Your task to perform on an android device: toggle improve location accuracy Image 0: 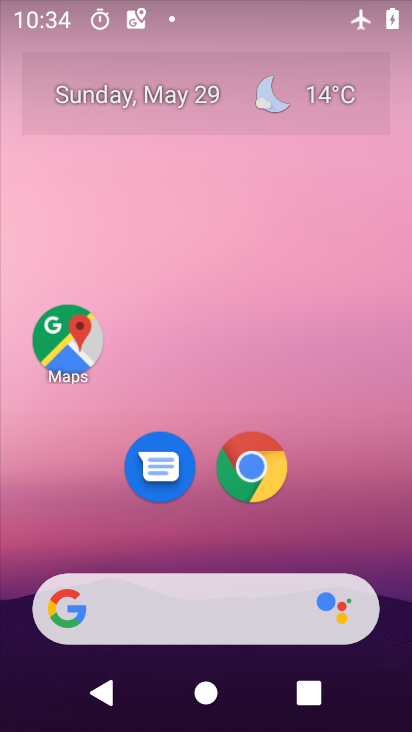
Step 0: drag from (194, 539) to (206, 122)
Your task to perform on an android device: toggle improve location accuracy Image 1: 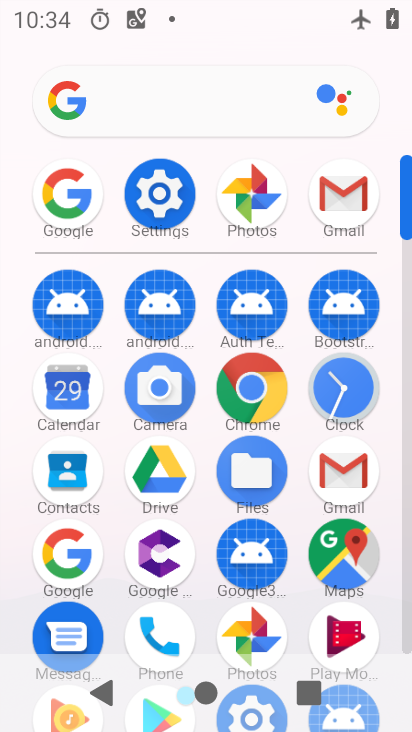
Step 1: click (172, 180)
Your task to perform on an android device: toggle improve location accuracy Image 2: 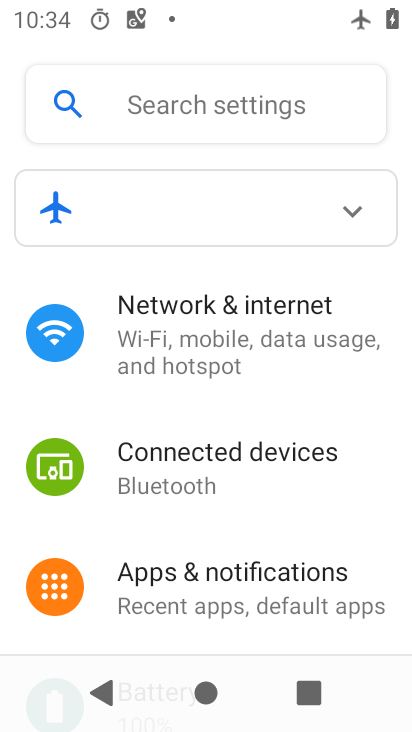
Step 2: drag from (211, 576) to (205, 299)
Your task to perform on an android device: toggle improve location accuracy Image 3: 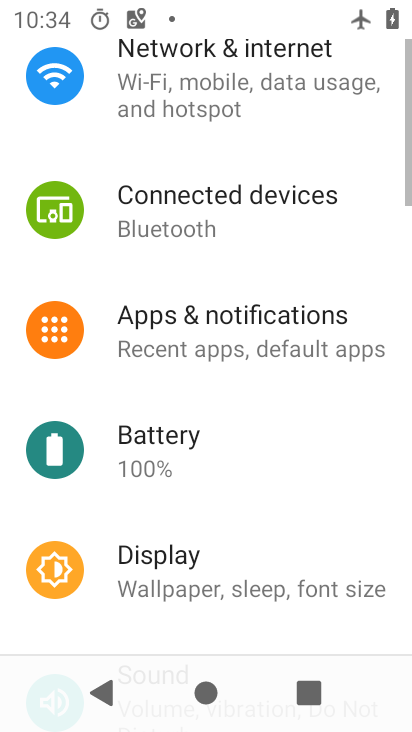
Step 3: drag from (222, 529) to (211, 311)
Your task to perform on an android device: toggle improve location accuracy Image 4: 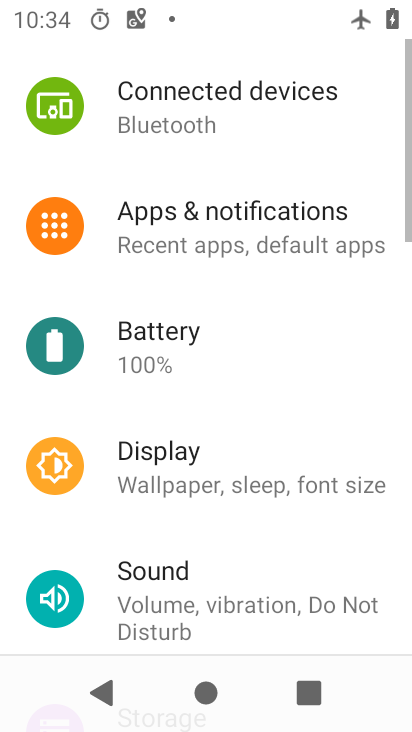
Step 4: drag from (238, 514) to (224, 267)
Your task to perform on an android device: toggle improve location accuracy Image 5: 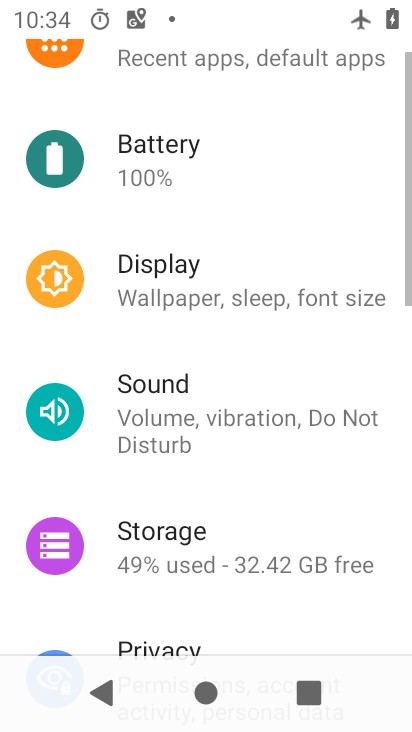
Step 5: drag from (218, 453) to (211, 281)
Your task to perform on an android device: toggle improve location accuracy Image 6: 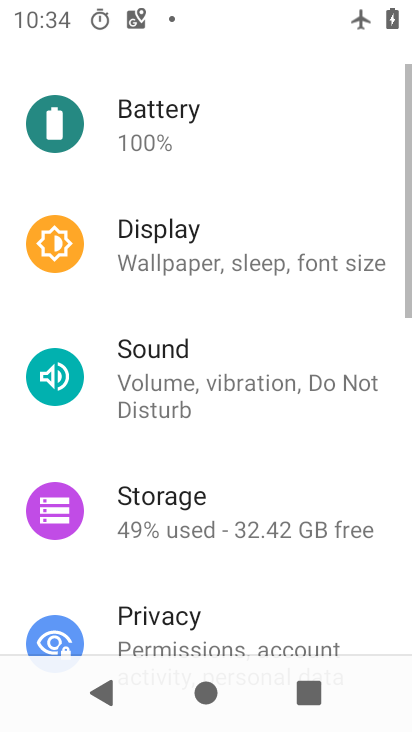
Step 6: click (220, 272)
Your task to perform on an android device: toggle improve location accuracy Image 7: 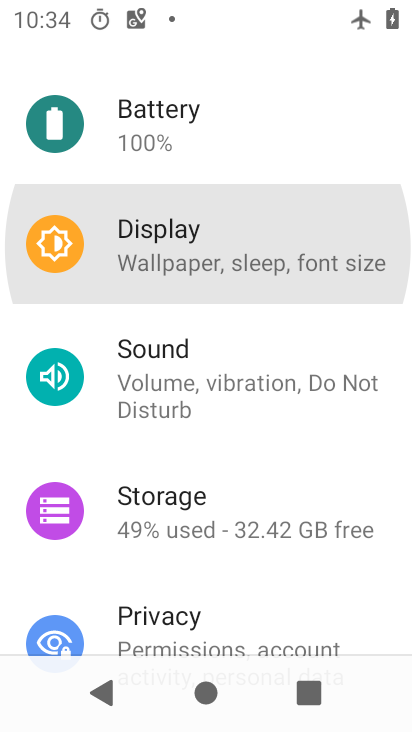
Step 7: drag from (224, 519) to (232, 232)
Your task to perform on an android device: toggle improve location accuracy Image 8: 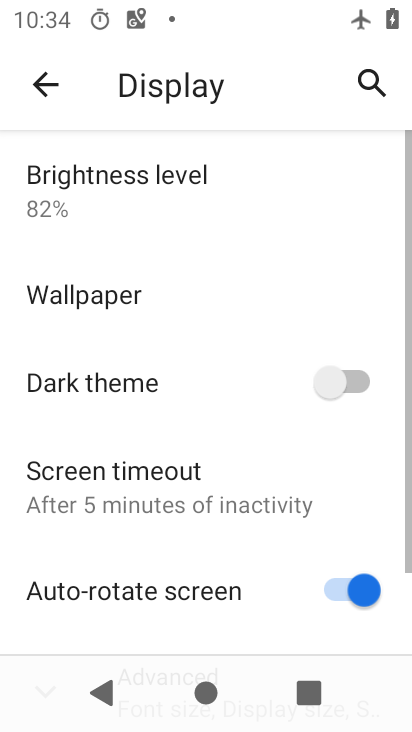
Step 8: drag from (243, 519) to (245, 225)
Your task to perform on an android device: toggle improve location accuracy Image 9: 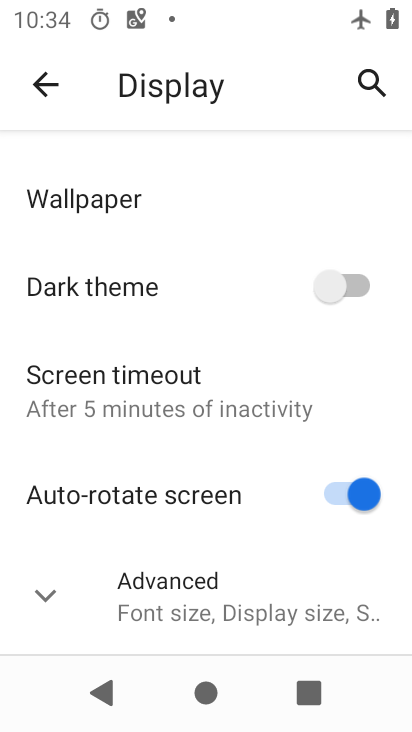
Step 9: click (39, 75)
Your task to perform on an android device: toggle improve location accuracy Image 10: 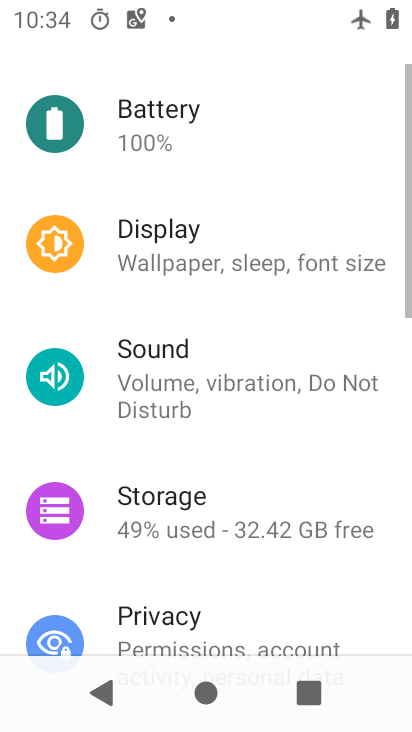
Step 10: drag from (201, 594) to (206, 218)
Your task to perform on an android device: toggle improve location accuracy Image 11: 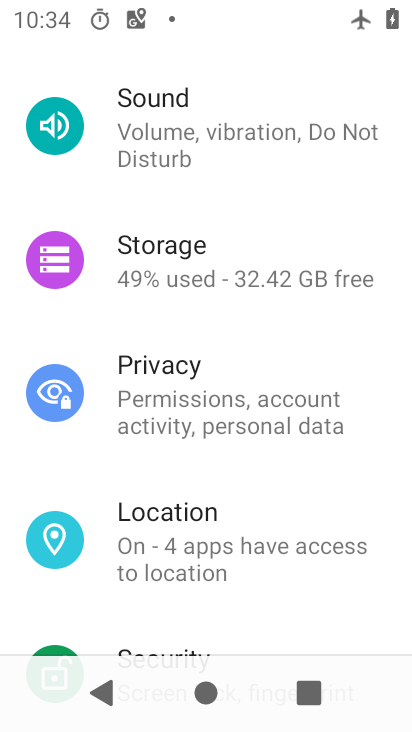
Step 11: click (206, 571)
Your task to perform on an android device: toggle improve location accuracy Image 12: 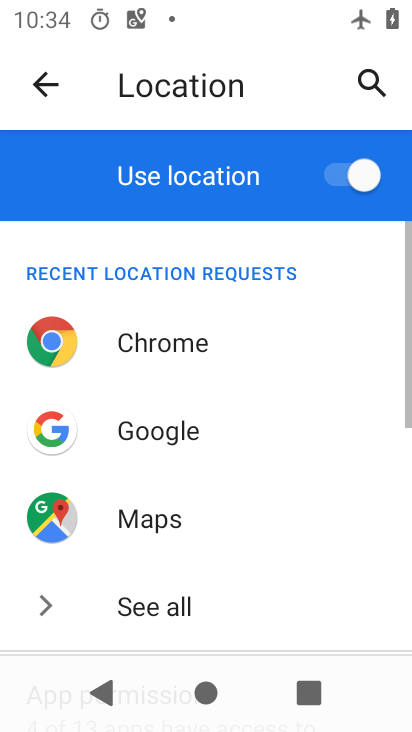
Step 12: drag from (207, 518) to (186, 195)
Your task to perform on an android device: toggle improve location accuracy Image 13: 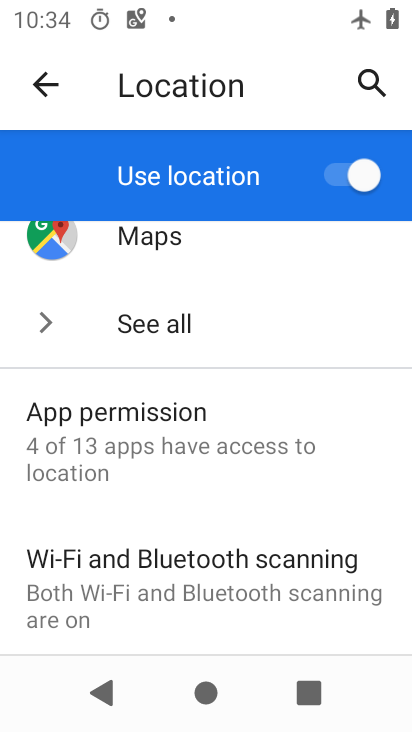
Step 13: drag from (223, 586) to (226, 276)
Your task to perform on an android device: toggle improve location accuracy Image 14: 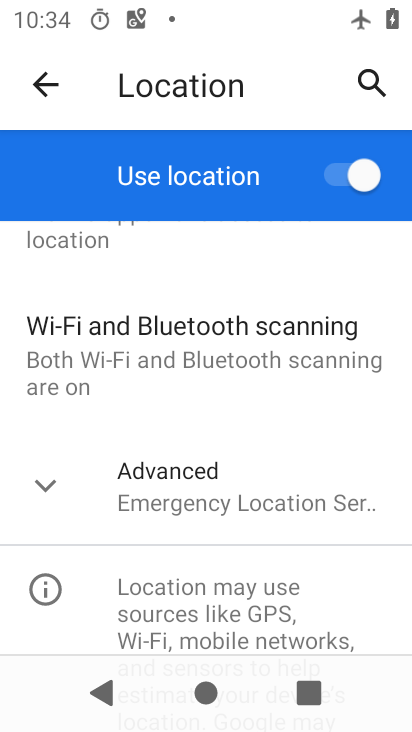
Step 14: click (231, 499)
Your task to perform on an android device: toggle improve location accuracy Image 15: 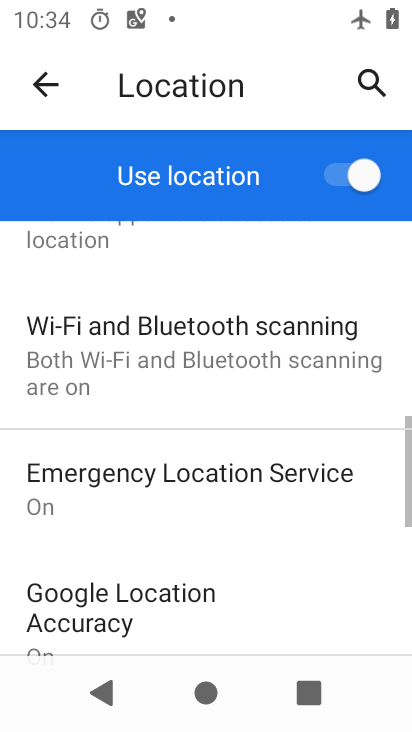
Step 15: drag from (240, 581) to (257, 386)
Your task to perform on an android device: toggle improve location accuracy Image 16: 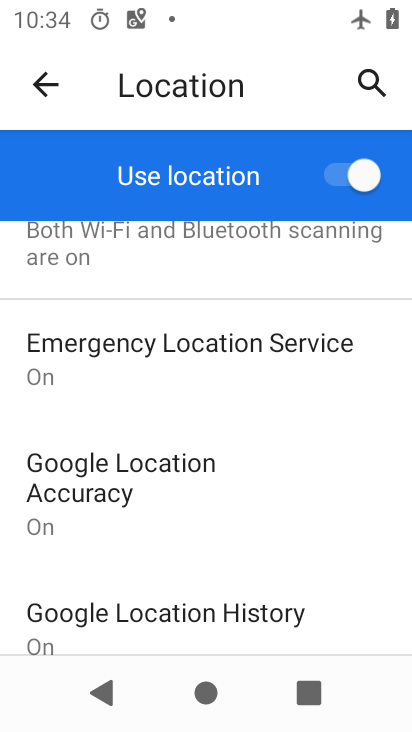
Step 16: click (230, 435)
Your task to perform on an android device: toggle improve location accuracy Image 17: 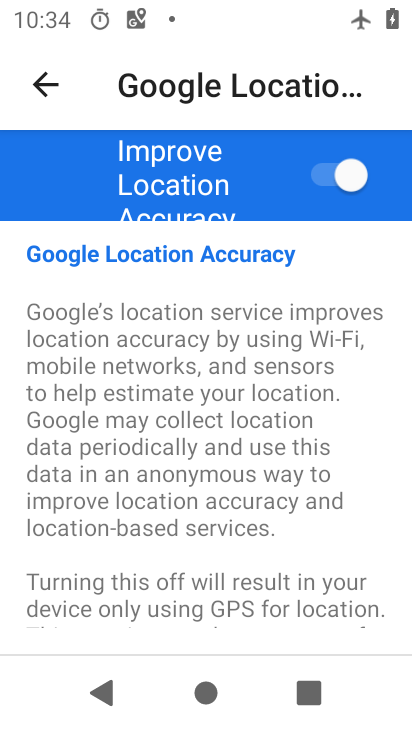
Step 17: click (312, 170)
Your task to perform on an android device: toggle improve location accuracy Image 18: 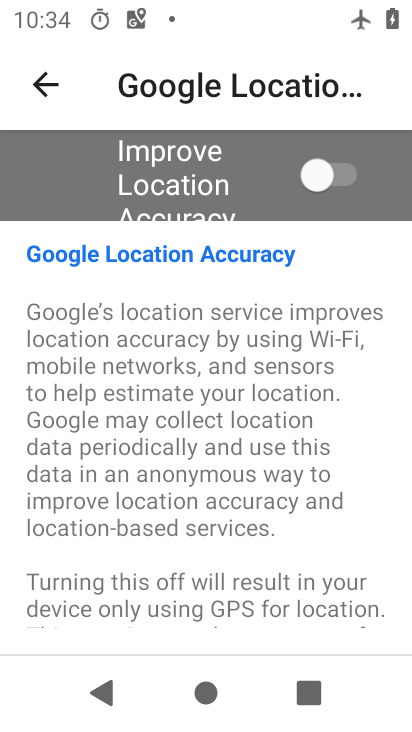
Step 18: task complete